Your task to perform on an android device: Open Reddit.com Image 0: 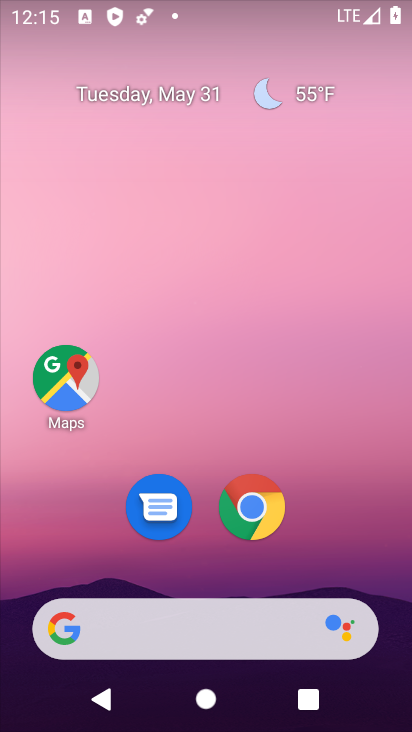
Step 0: drag from (383, 607) to (279, 31)
Your task to perform on an android device: Open Reddit.com Image 1: 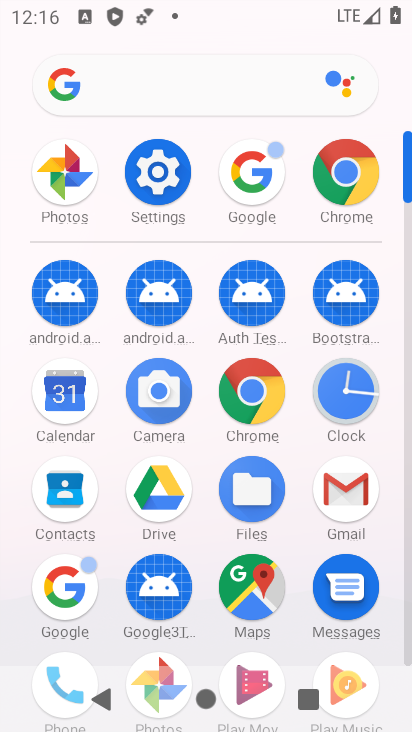
Step 1: click (37, 573)
Your task to perform on an android device: Open Reddit.com Image 2: 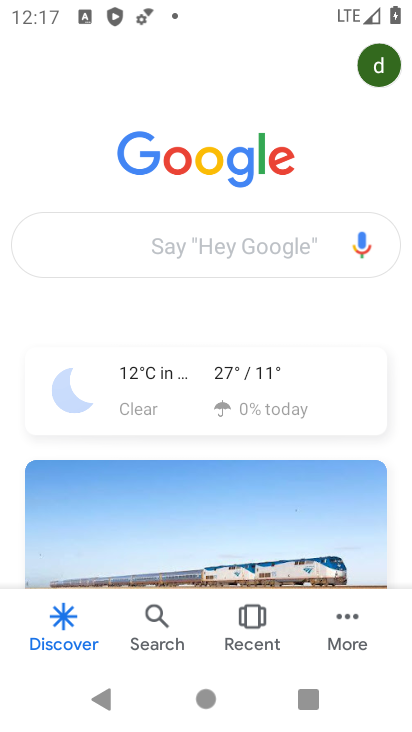
Step 2: click (176, 193)
Your task to perform on an android device: Open Reddit.com Image 3: 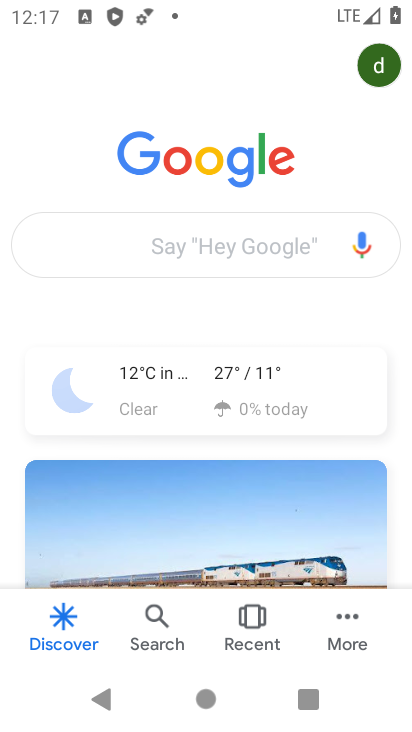
Step 3: click (184, 225)
Your task to perform on an android device: Open Reddit.com Image 4: 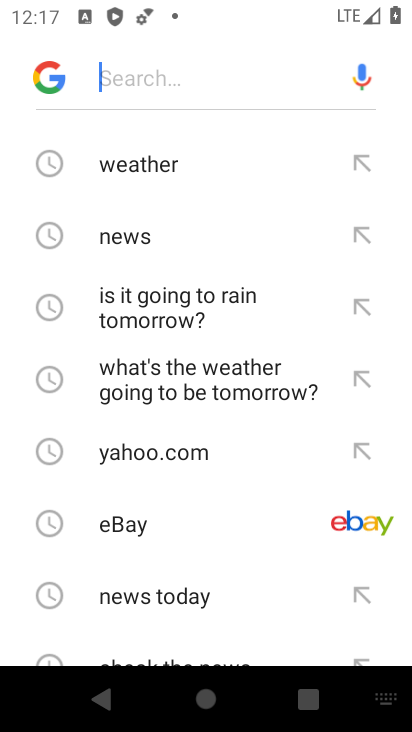
Step 4: drag from (182, 561) to (213, 99)
Your task to perform on an android device: Open Reddit.com Image 5: 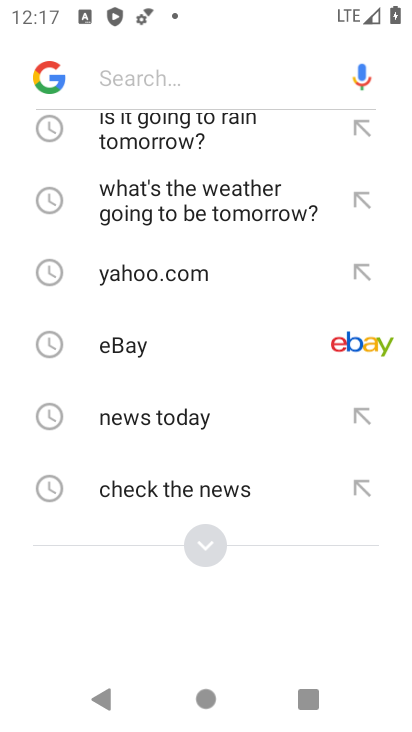
Step 5: click (213, 550)
Your task to perform on an android device: Open Reddit.com Image 6: 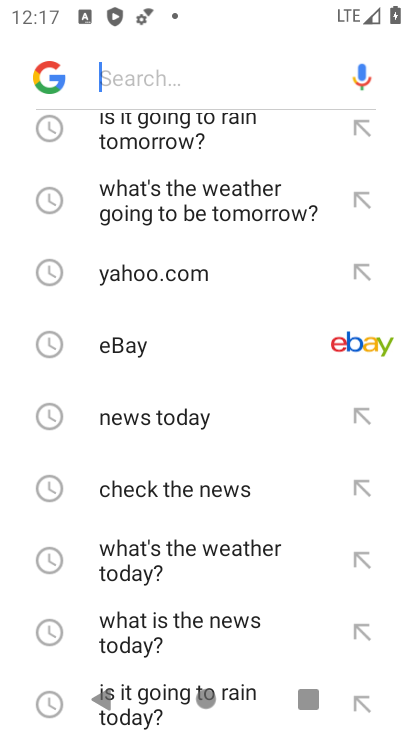
Step 6: drag from (199, 603) to (227, 127)
Your task to perform on an android device: Open Reddit.com Image 7: 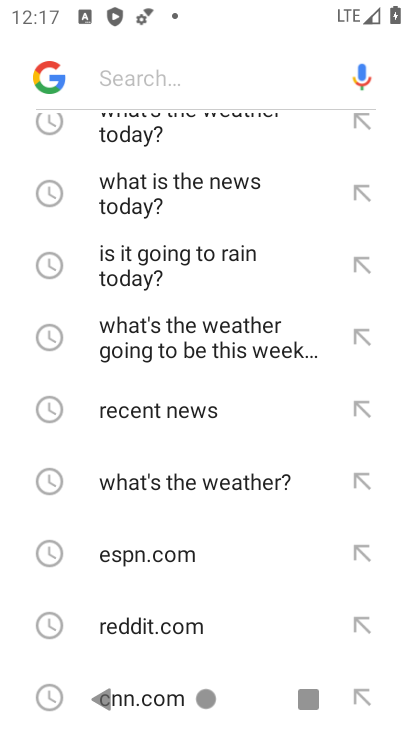
Step 7: drag from (169, 545) to (192, 481)
Your task to perform on an android device: Open Reddit.com Image 8: 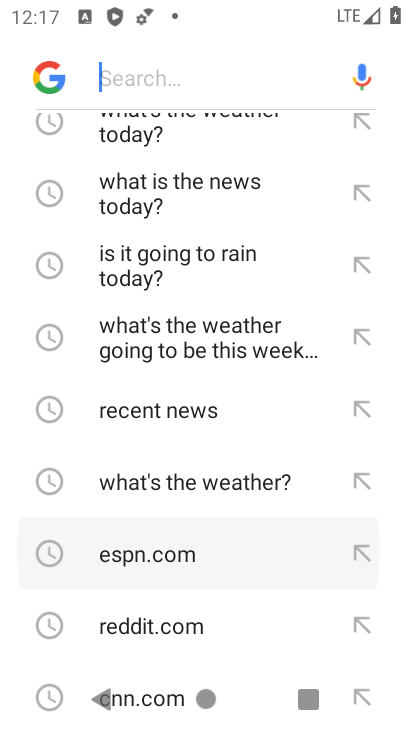
Step 8: drag from (193, 402) to (194, 289)
Your task to perform on an android device: Open Reddit.com Image 9: 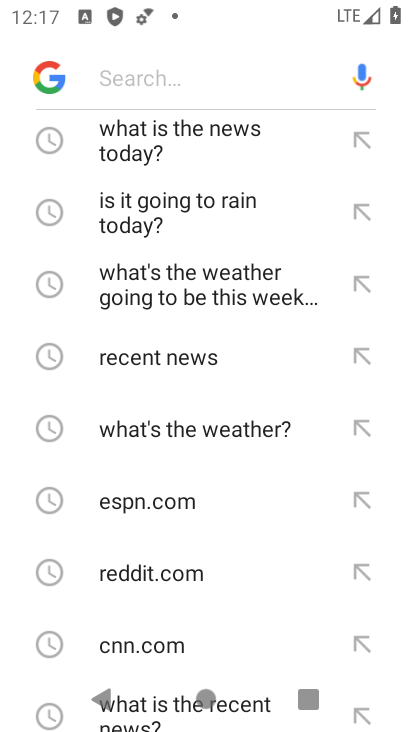
Step 9: drag from (120, 631) to (222, 208)
Your task to perform on an android device: Open Reddit.com Image 10: 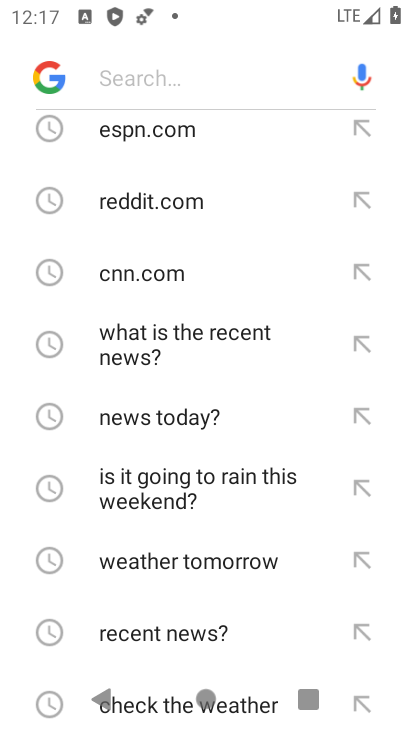
Step 10: drag from (175, 581) to (230, 238)
Your task to perform on an android device: Open Reddit.com Image 11: 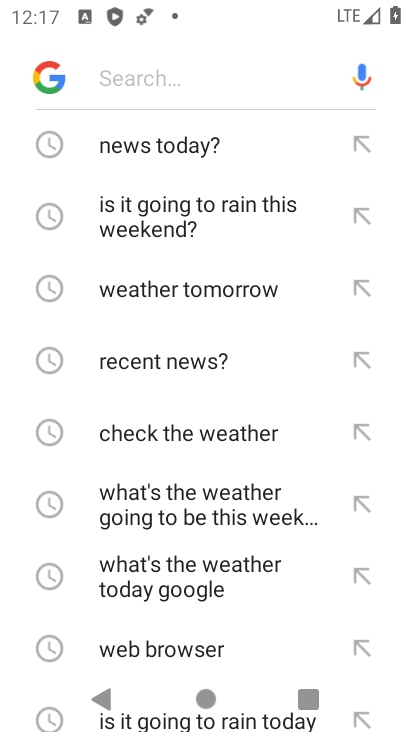
Step 11: drag from (161, 551) to (211, 192)
Your task to perform on an android device: Open Reddit.com Image 12: 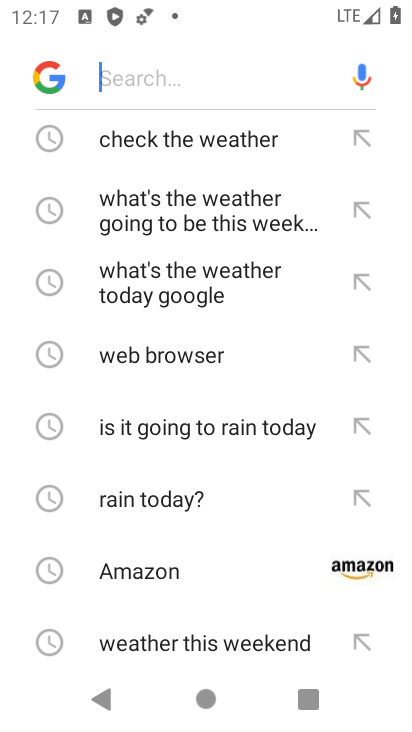
Step 12: drag from (145, 575) to (161, 127)
Your task to perform on an android device: Open Reddit.com Image 13: 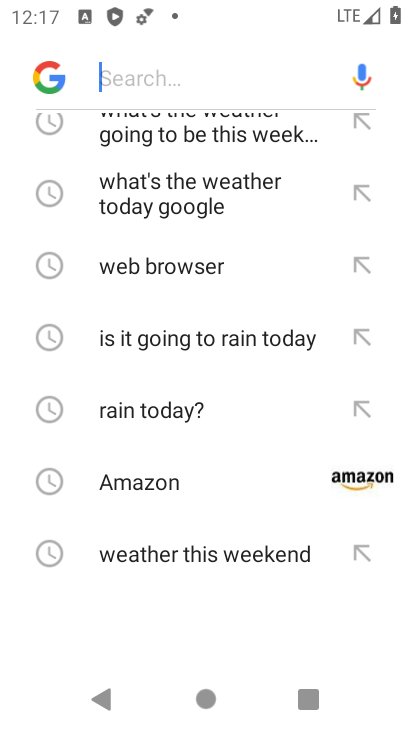
Step 13: click (178, 78)
Your task to perform on an android device: Open Reddit.com Image 14: 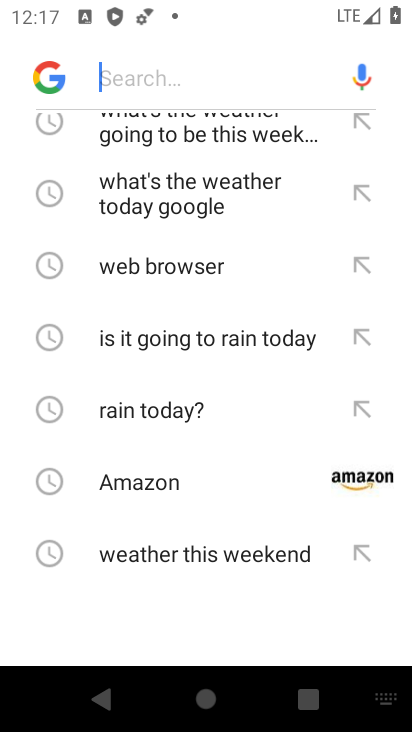
Step 14: type "reddit.com"
Your task to perform on an android device: Open Reddit.com Image 15: 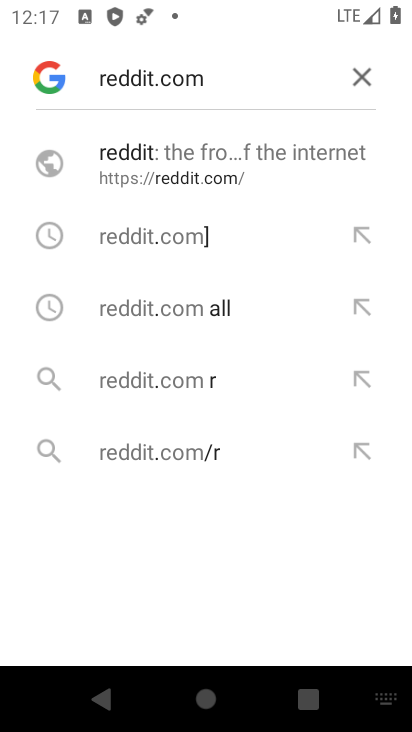
Step 15: click (190, 165)
Your task to perform on an android device: Open Reddit.com Image 16: 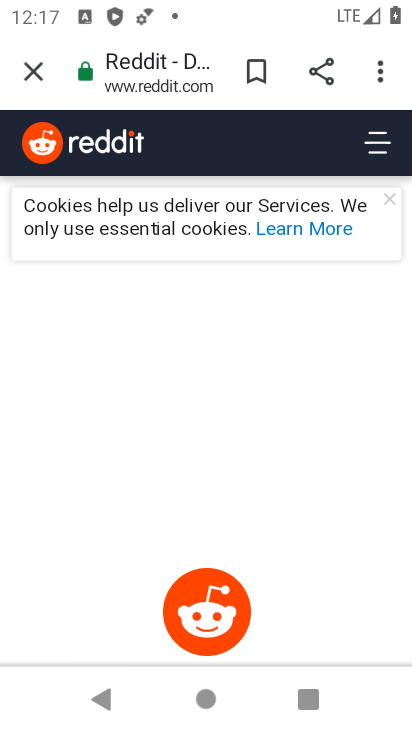
Step 16: task complete